Your task to perform on an android device: add a label to a message in the gmail app Image 0: 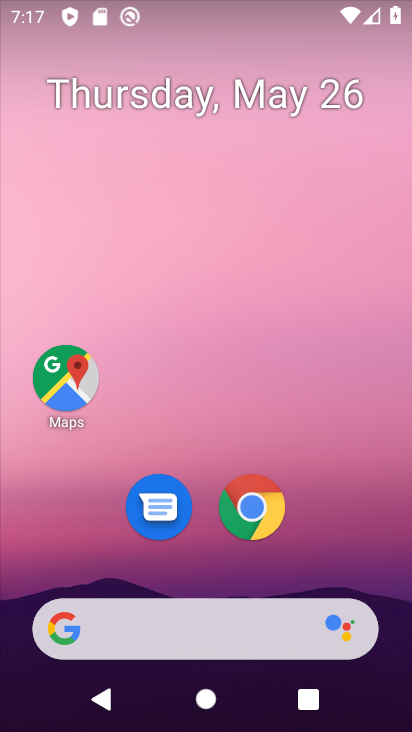
Step 0: drag from (295, 573) to (343, 93)
Your task to perform on an android device: add a label to a message in the gmail app Image 1: 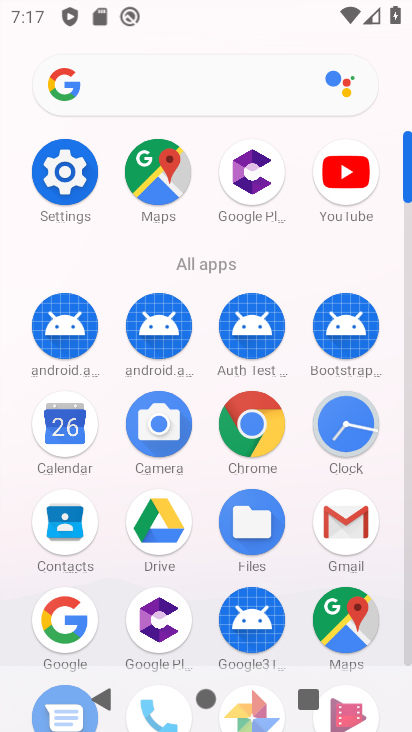
Step 1: click (327, 523)
Your task to perform on an android device: add a label to a message in the gmail app Image 2: 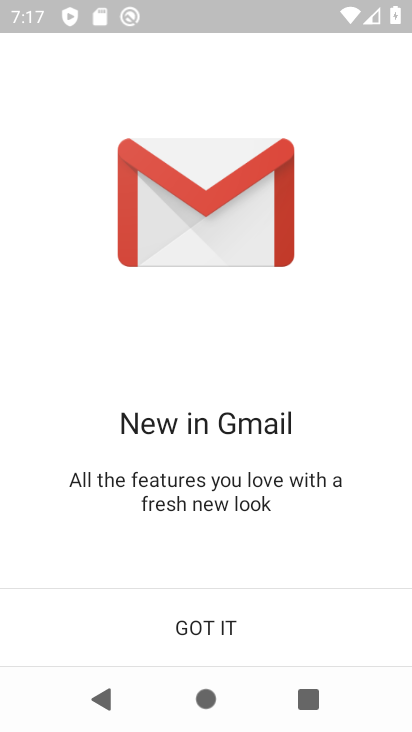
Step 2: click (210, 640)
Your task to perform on an android device: add a label to a message in the gmail app Image 3: 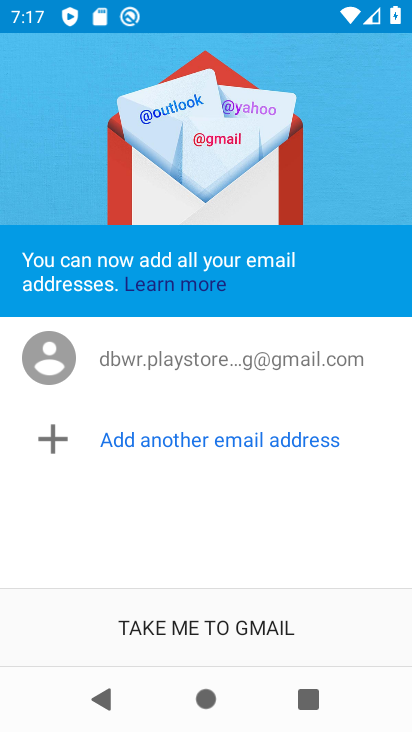
Step 3: click (210, 640)
Your task to perform on an android device: add a label to a message in the gmail app Image 4: 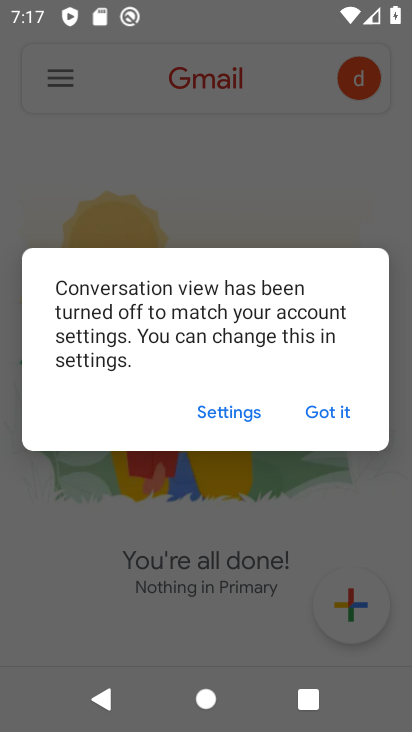
Step 4: click (347, 417)
Your task to perform on an android device: add a label to a message in the gmail app Image 5: 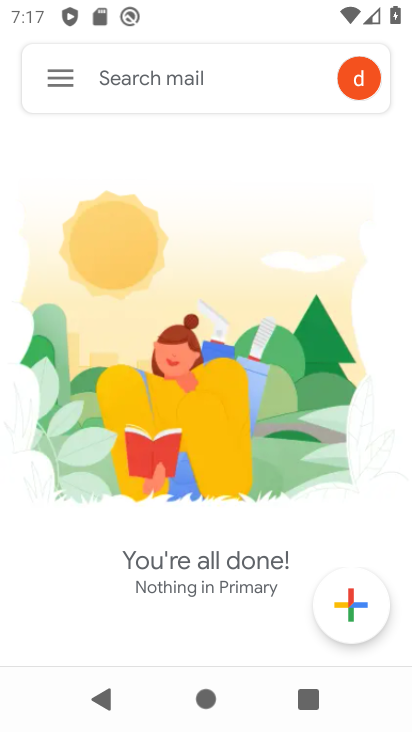
Step 5: click (54, 80)
Your task to perform on an android device: add a label to a message in the gmail app Image 6: 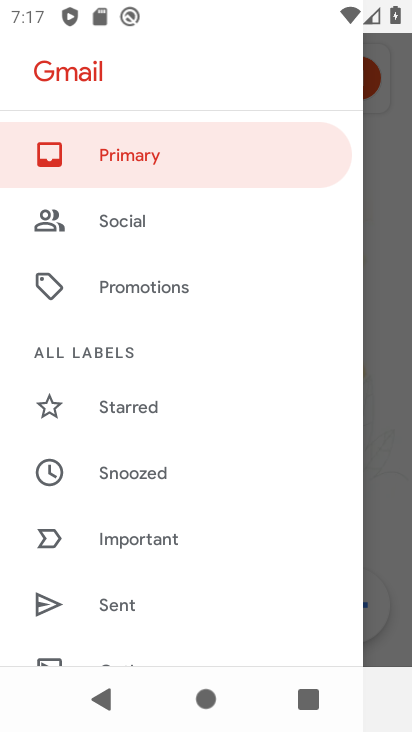
Step 6: drag from (154, 609) to (195, 361)
Your task to perform on an android device: add a label to a message in the gmail app Image 7: 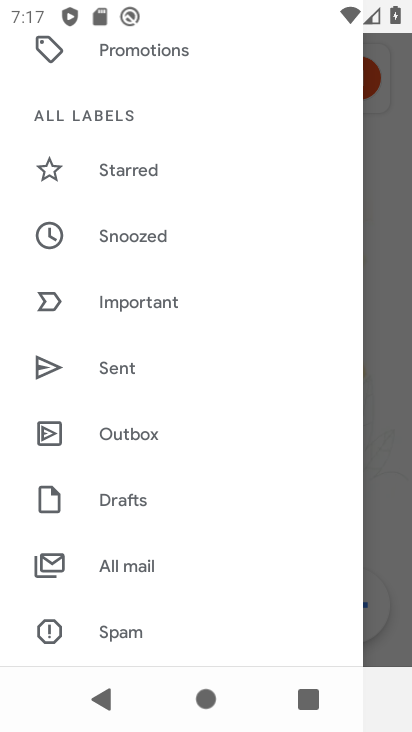
Step 7: press back button
Your task to perform on an android device: add a label to a message in the gmail app Image 8: 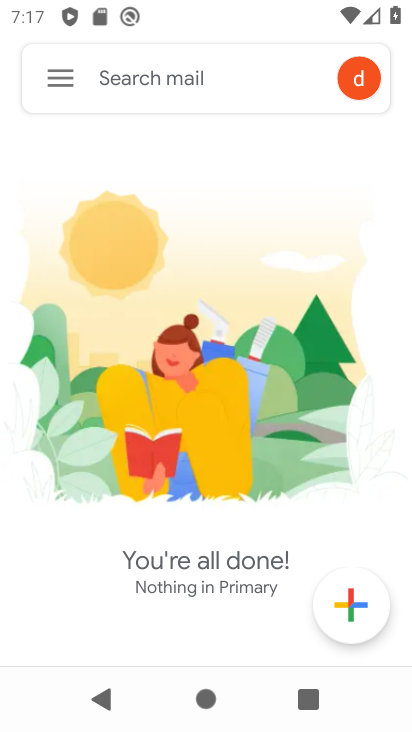
Step 8: click (57, 84)
Your task to perform on an android device: add a label to a message in the gmail app Image 9: 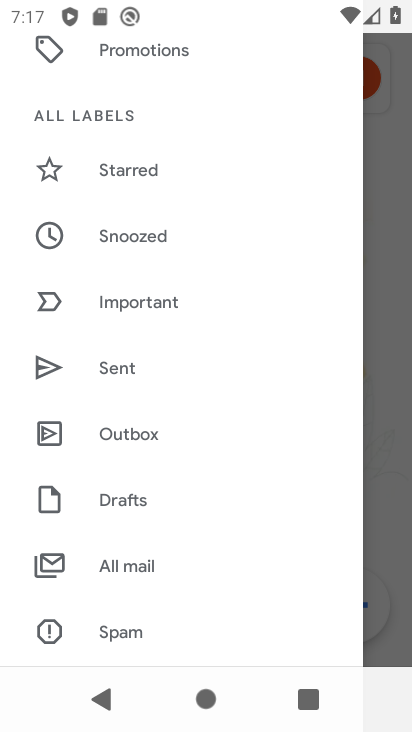
Step 9: click (151, 565)
Your task to perform on an android device: add a label to a message in the gmail app Image 10: 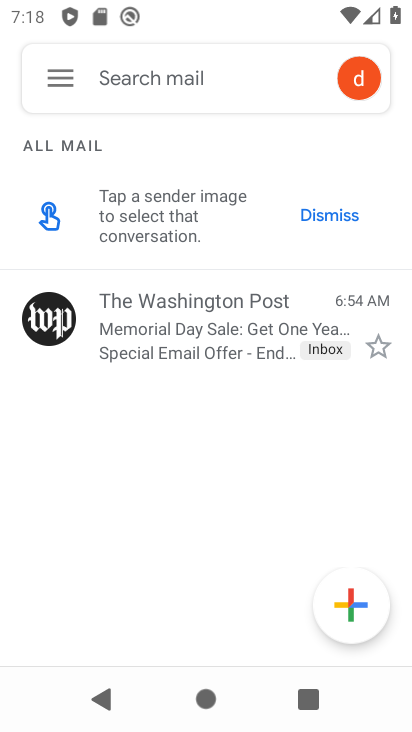
Step 10: click (316, 352)
Your task to perform on an android device: add a label to a message in the gmail app Image 11: 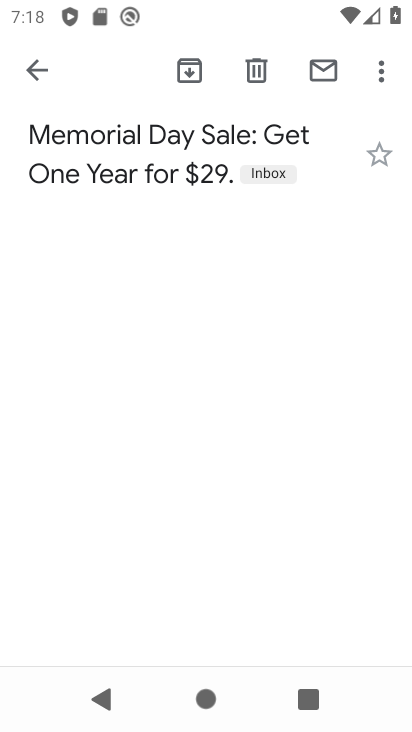
Step 11: click (270, 178)
Your task to perform on an android device: add a label to a message in the gmail app Image 12: 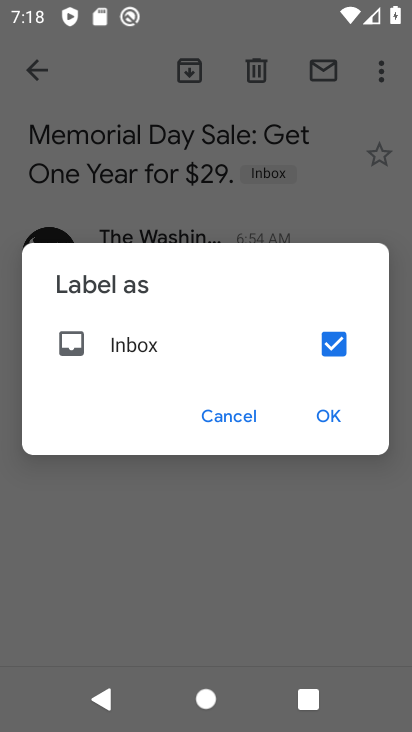
Step 12: task complete